Your task to perform on an android device: Go to Android settings Image 0: 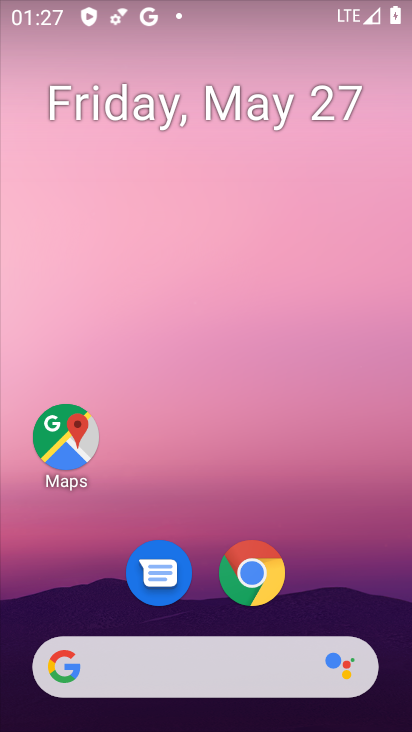
Step 0: drag from (188, 621) to (136, 41)
Your task to perform on an android device: Go to Android settings Image 1: 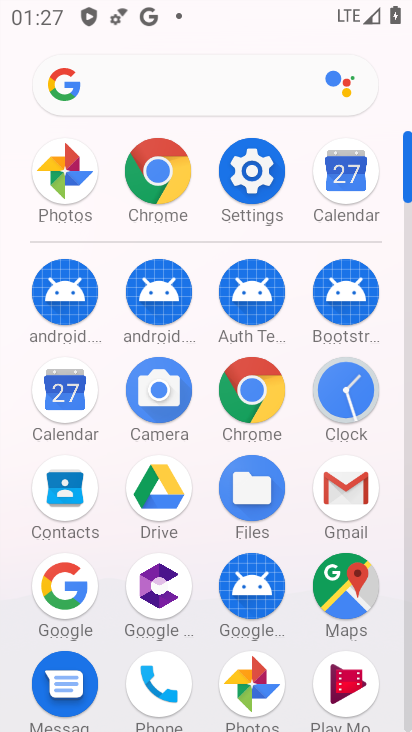
Step 1: click (235, 197)
Your task to perform on an android device: Go to Android settings Image 2: 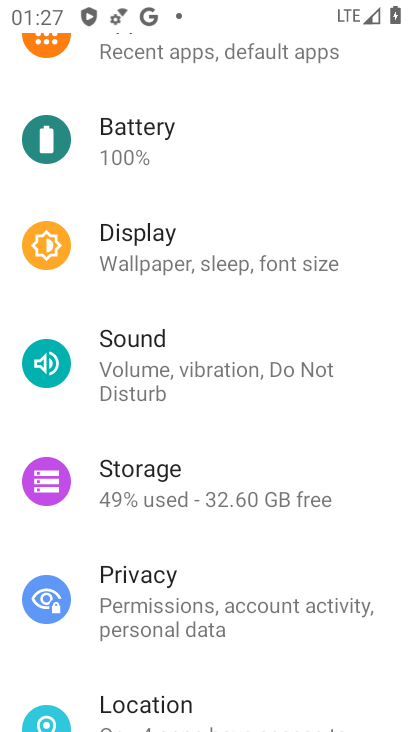
Step 2: task complete